Your task to perform on an android device: Search for "usb-c to usb-a" on bestbuy, select the first entry, and add it to the cart. Image 0: 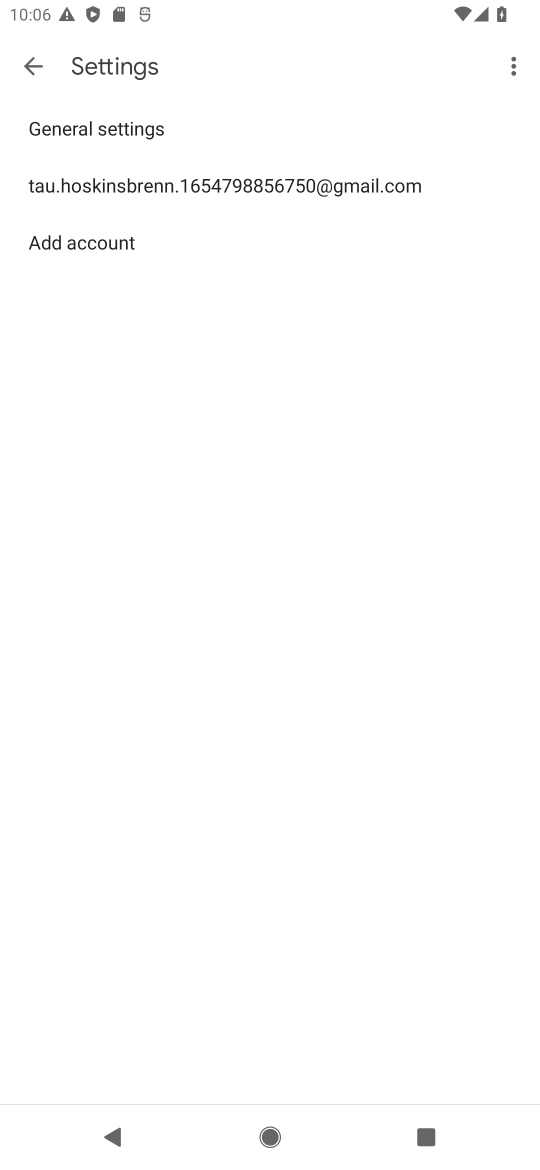
Step 0: press home button
Your task to perform on an android device: Search for "usb-c to usb-a" on bestbuy, select the first entry, and add it to the cart. Image 1: 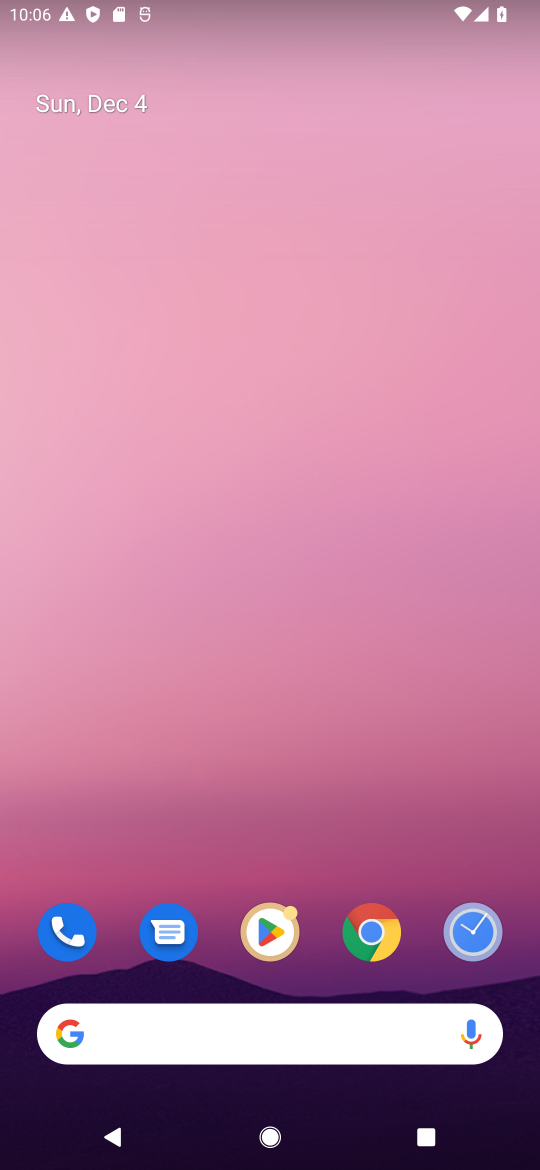
Step 1: click (374, 933)
Your task to perform on an android device: Search for "usb-c to usb-a" on bestbuy, select the first entry, and add it to the cart. Image 2: 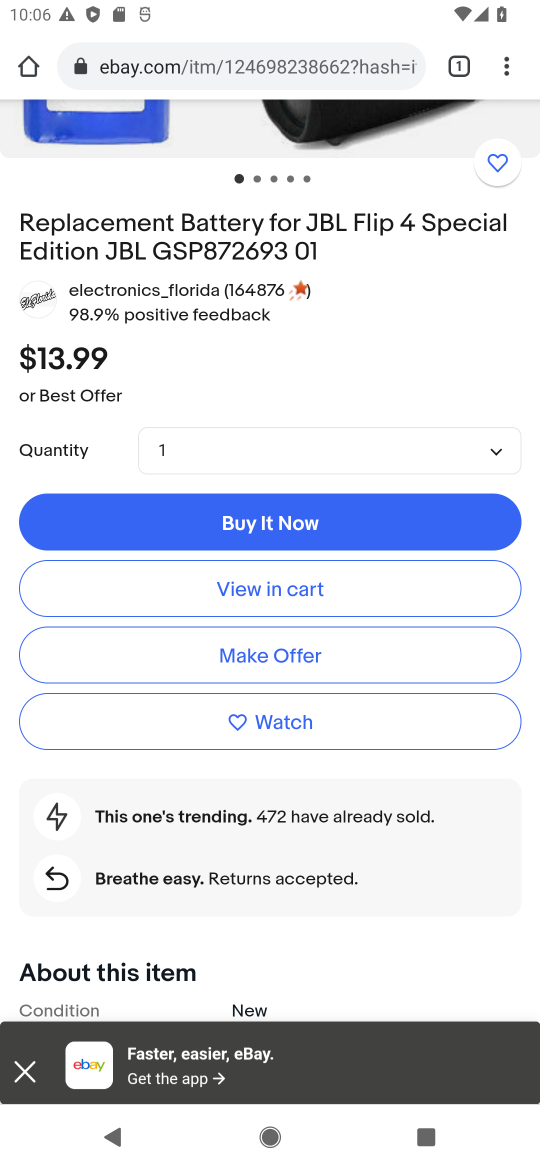
Step 2: click (244, 66)
Your task to perform on an android device: Search for "usb-c to usb-a" on bestbuy, select the first entry, and add it to the cart. Image 3: 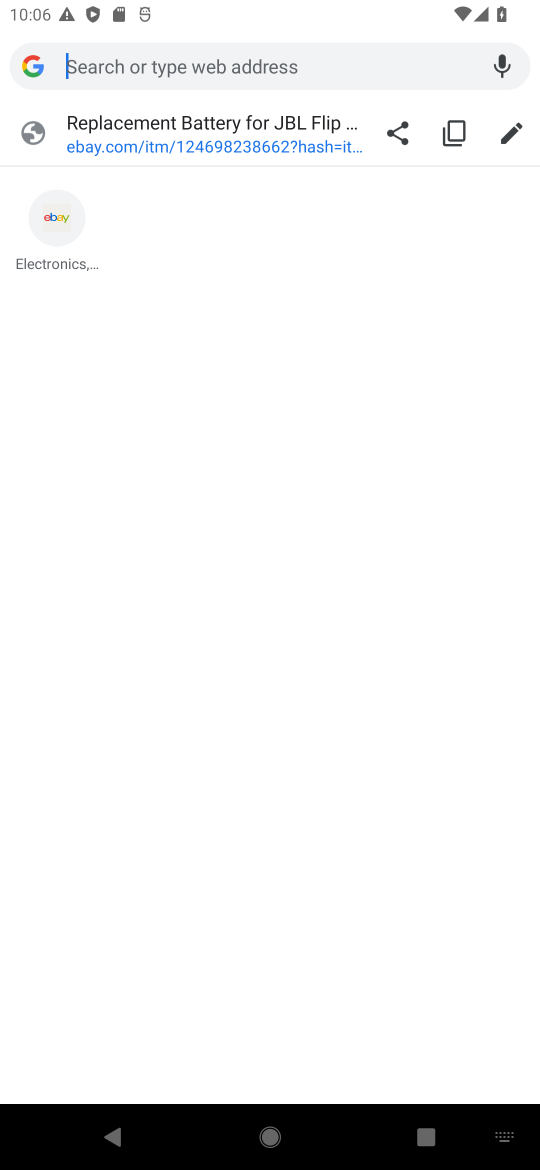
Step 3: type "bestbuy"
Your task to perform on an android device: Search for "usb-c to usb-a" on bestbuy, select the first entry, and add it to the cart. Image 4: 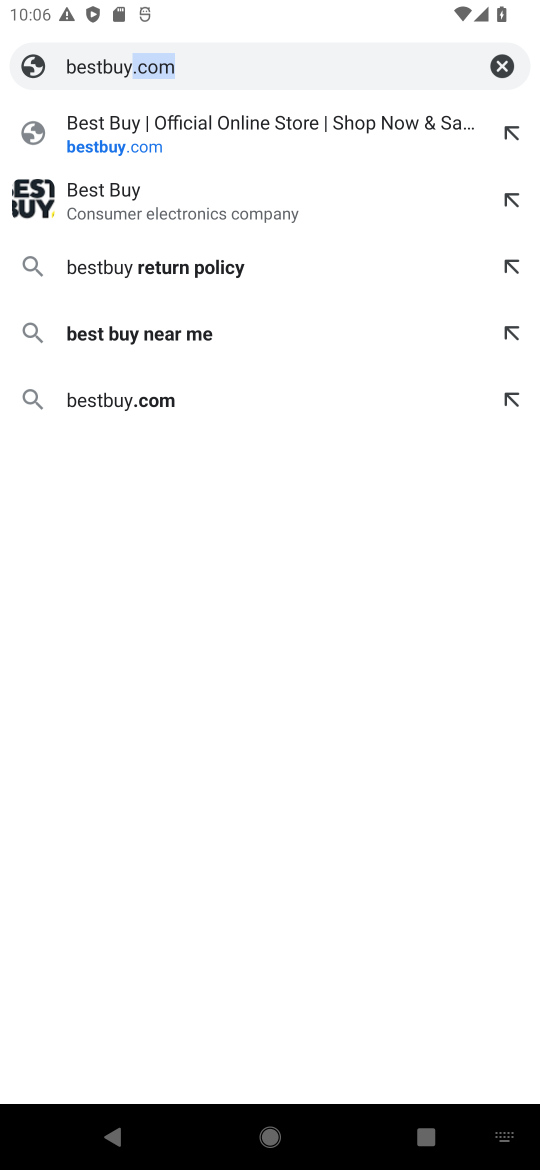
Step 4: click (152, 127)
Your task to perform on an android device: Search for "usb-c to usb-a" on bestbuy, select the first entry, and add it to the cart. Image 5: 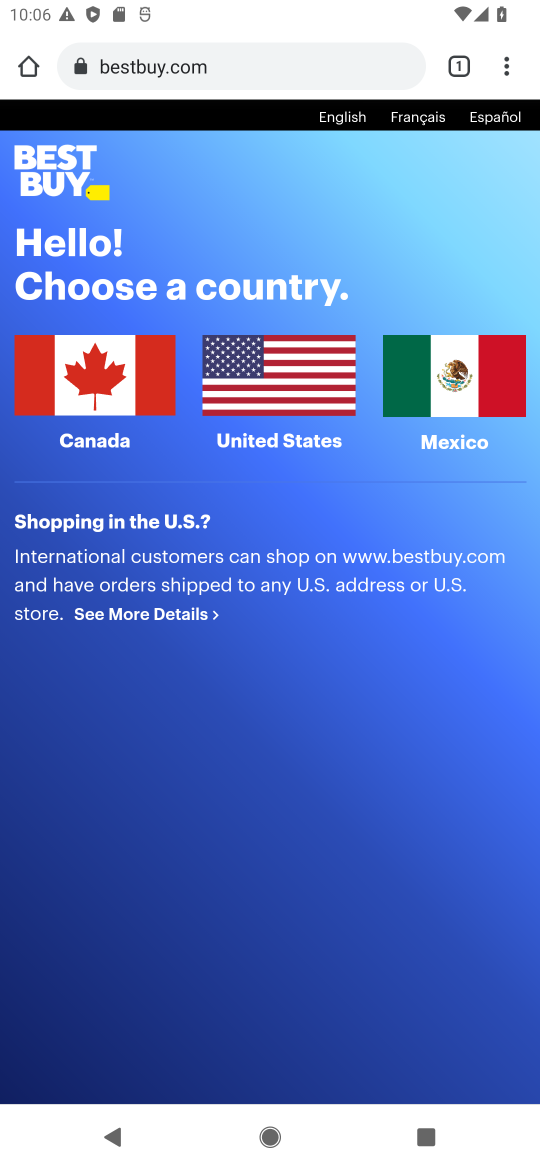
Step 5: click (259, 371)
Your task to perform on an android device: Search for "usb-c to usb-a" on bestbuy, select the first entry, and add it to the cart. Image 6: 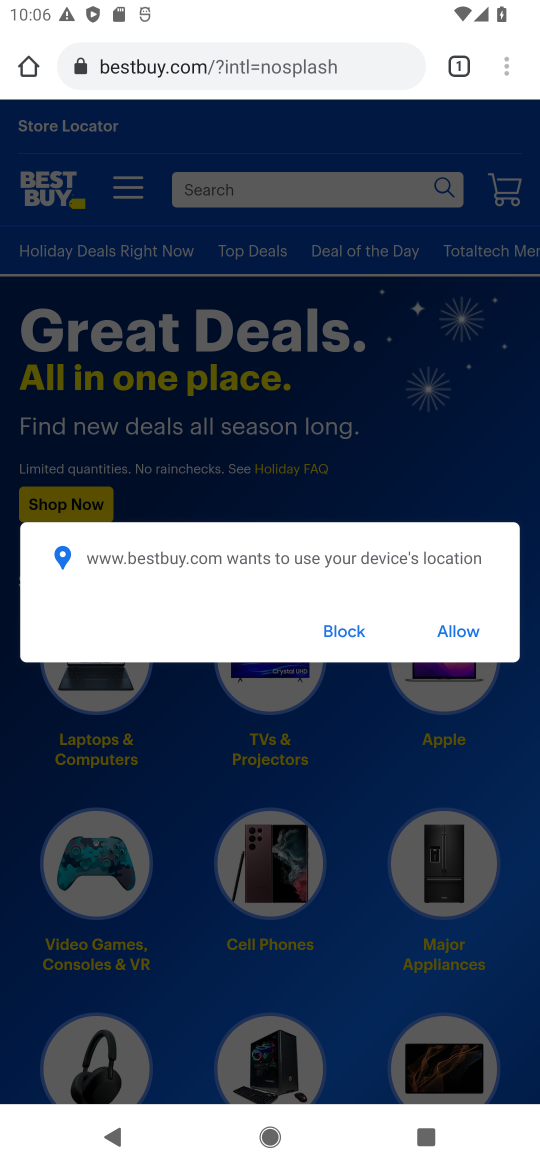
Step 6: click (350, 628)
Your task to perform on an android device: Search for "usb-c to usb-a" on bestbuy, select the first entry, and add it to the cart. Image 7: 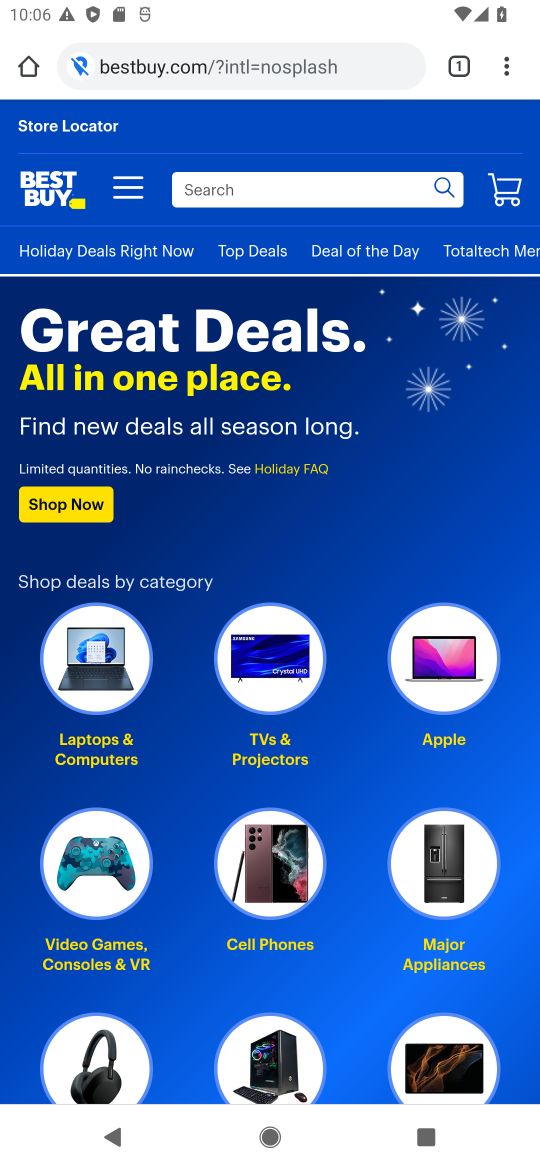
Step 7: click (281, 194)
Your task to perform on an android device: Search for "usb-c to usb-a" on bestbuy, select the first entry, and add it to the cart. Image 8: 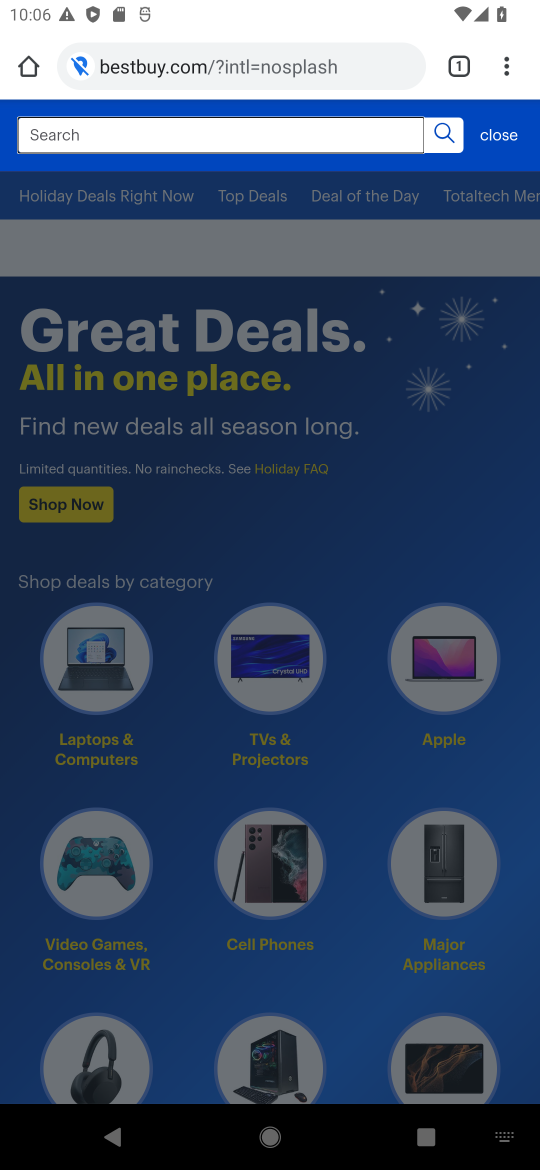
Step 8: type "usb-c to usb-a"
Your task to perform on an android device: Search for "usb-c to usb-a" on bestbuy, select the first entry, and add it to the cart. Image 9: 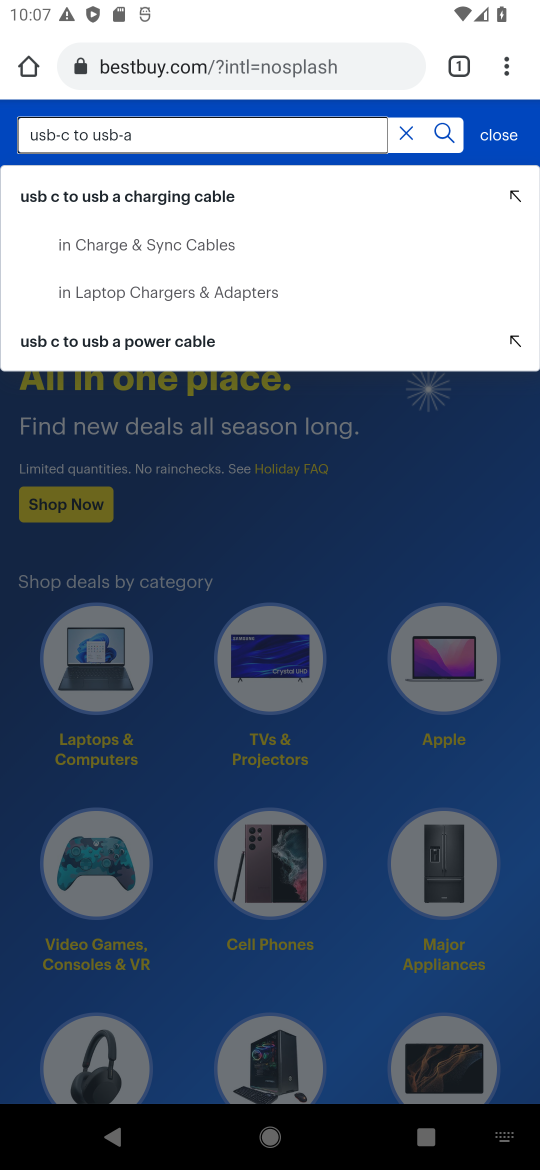
Step 9: click (111, 206)
Your task to perform on an android device: Search for "usb-c to usb-a" on bestbuy, select the first entry, and add it to the cart. Image 10: 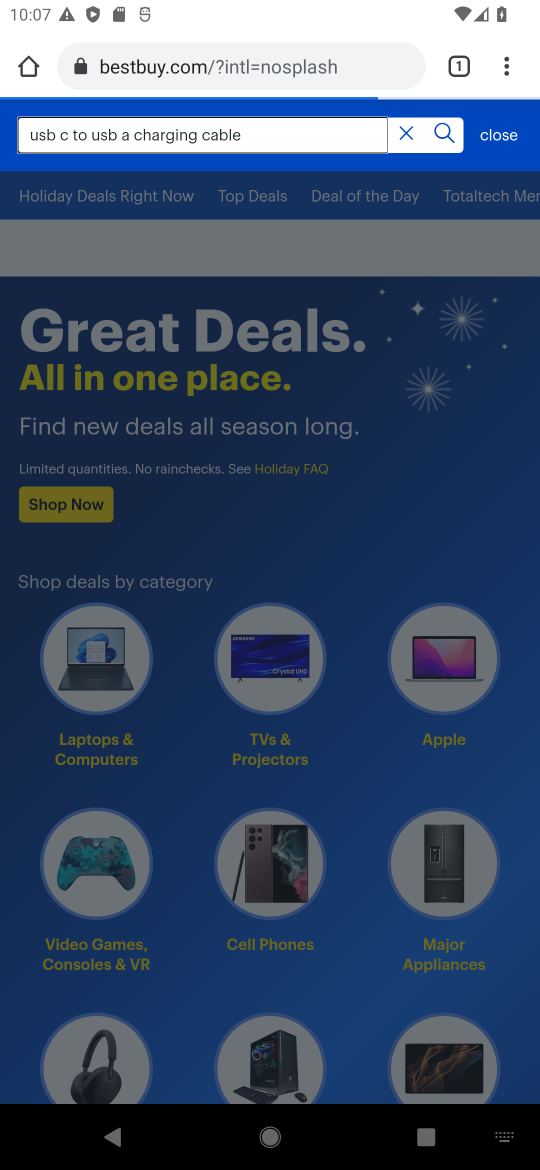
Step 10: click (440, 136)
Your task to perform on an android device: Search for "usb-c to usb-a" on bestbuy, select the first entry, and add it to the cart. Image 11: 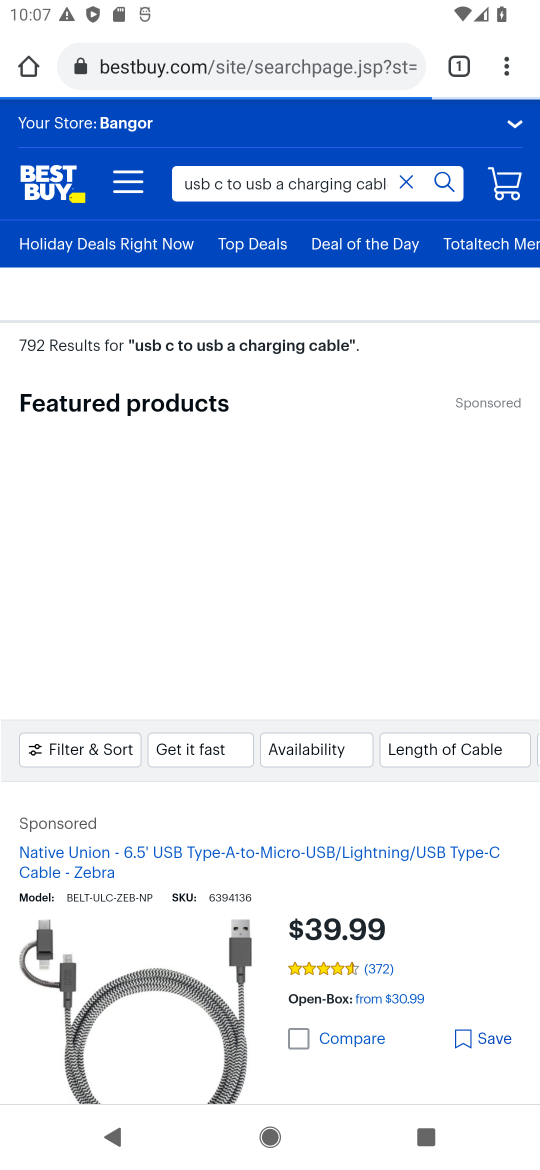
Step 11: click (172, 979)
Your task to perform on an android device: Search for "usb-c to usb-a" on bestbuy, select the first entry, and add it to the cart. Image 12: 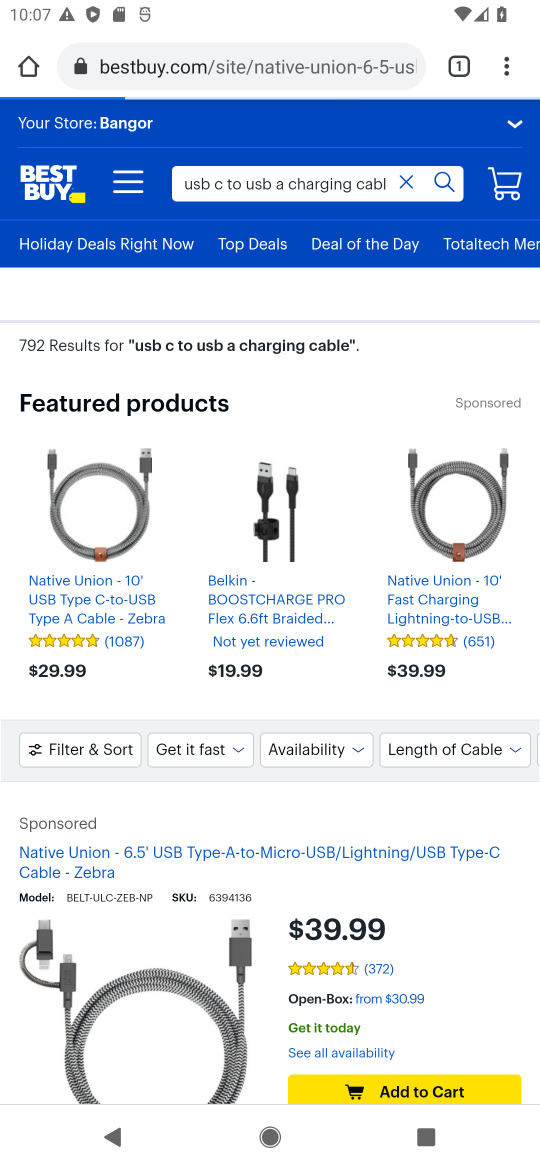
Step 12: click (401, 1036)
Your task to perform on an android device: Search for "usb-c to usb-a" on bestbuy, select the first entry, and add it to the cart. Image 13: 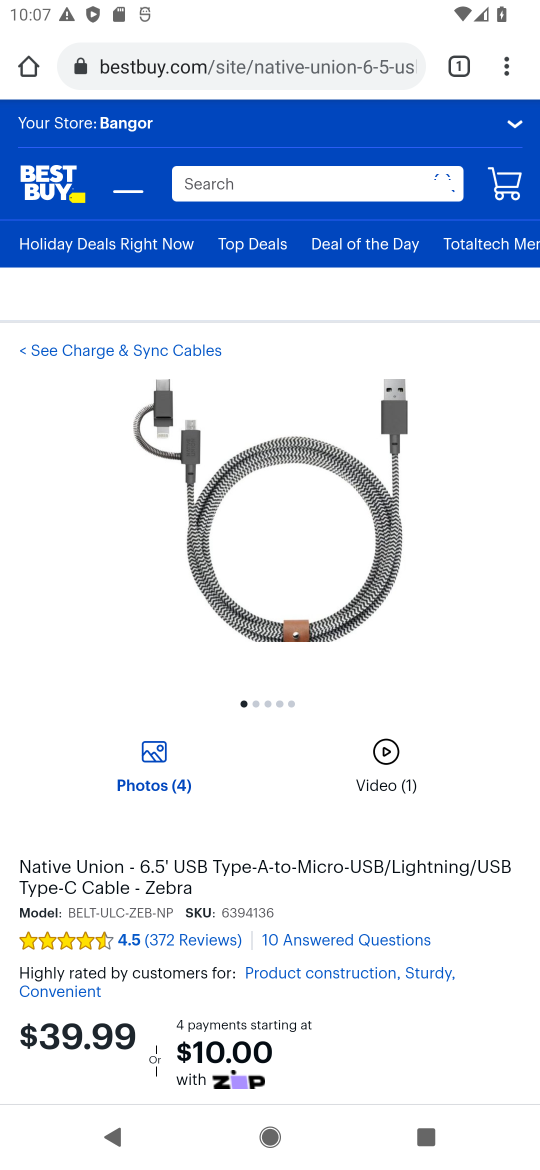
Step 13: task complete